Your task to perform on an android device: Open the phone app and click the voicemail tab. Image 0: 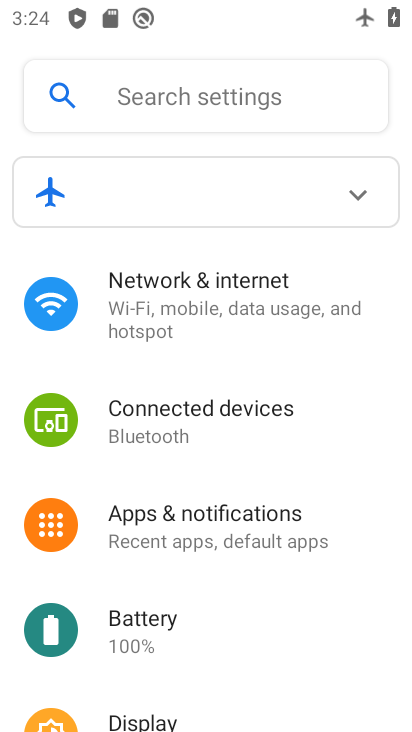
Step 0: press back button
Your task to perform on an android device: Open the phone app and click the voicemail tab. Image 1: 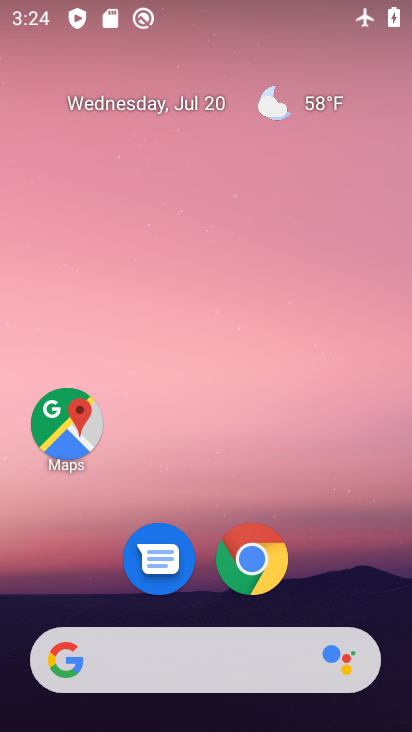
Step 1: drag from (134, 579) to (238, 30)
Your task to perform on an android device: Open the phone app and click the voicemail tab. Image 2: 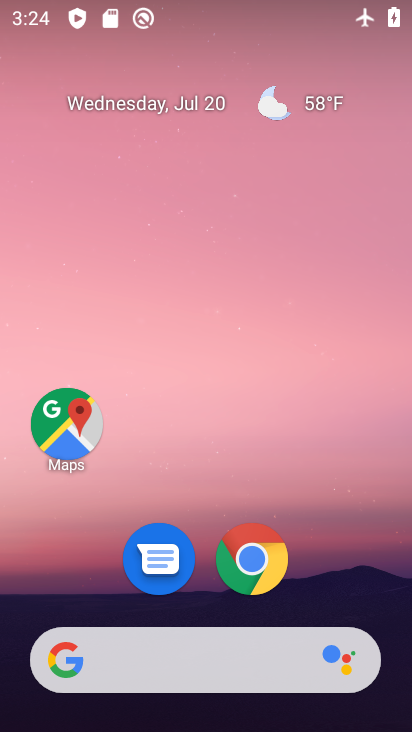
Step 2: drag from (112, 564) to (176, 45)
Your task to perform on an android device: Open the phone app and click the voicemail tab. Image 3: 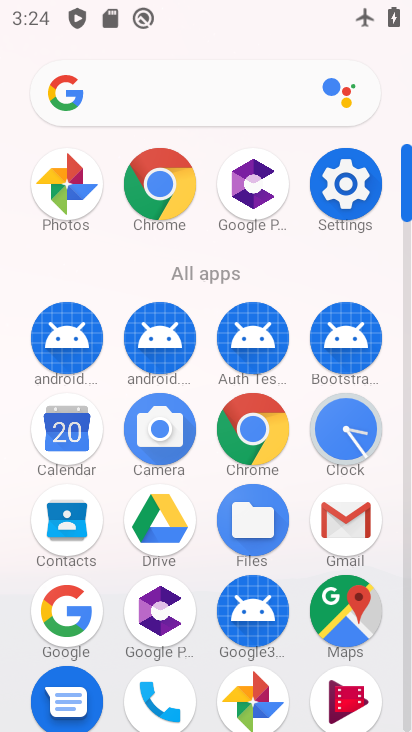
Step 3: click (167, 685)
Your task to perform on an android device: Open the phone app and click the voicemail tab. Image 4: 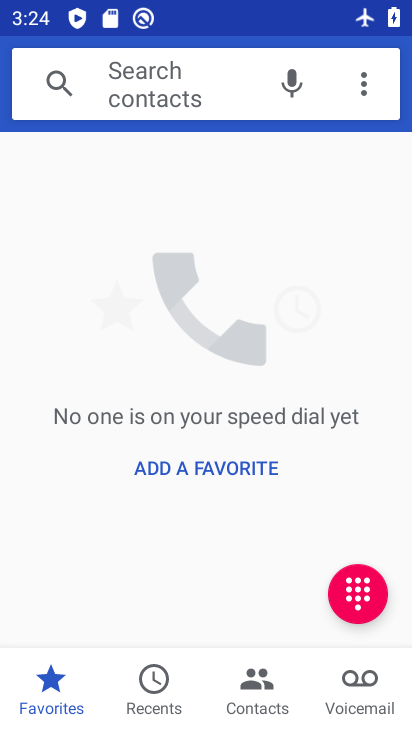
Step 4: click (370, 686)
Your task to perform on an android device: Open the phone app and click the voicemail tab. Image 5: 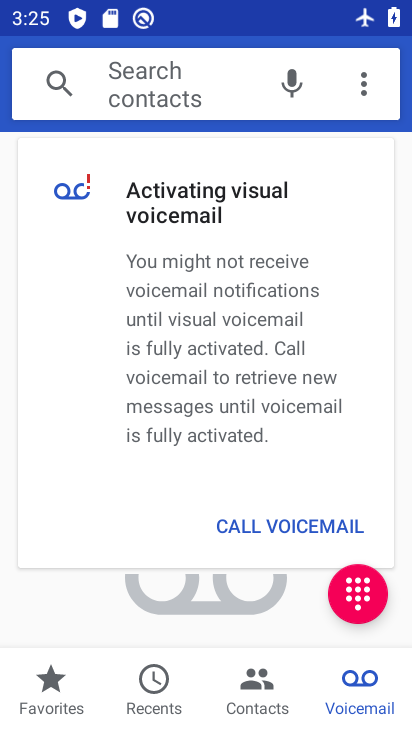
Step 5: task complete